Your task to perform on an android device: change your default location settings in chrome Image 0: 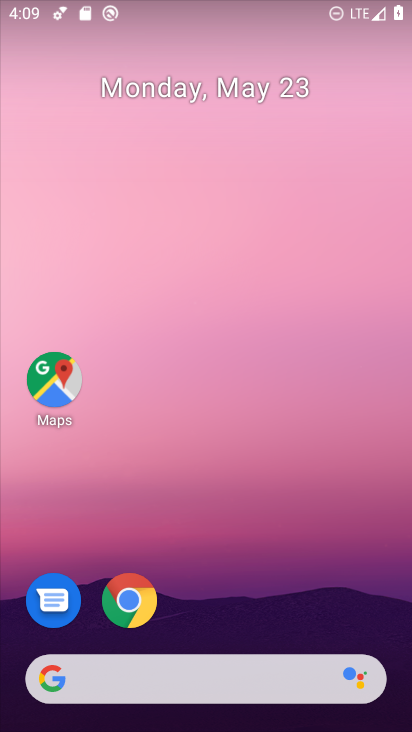
Step 0: click (140, 603)
Your task to perform on an android device: change your default location settings in chrome Image 1: 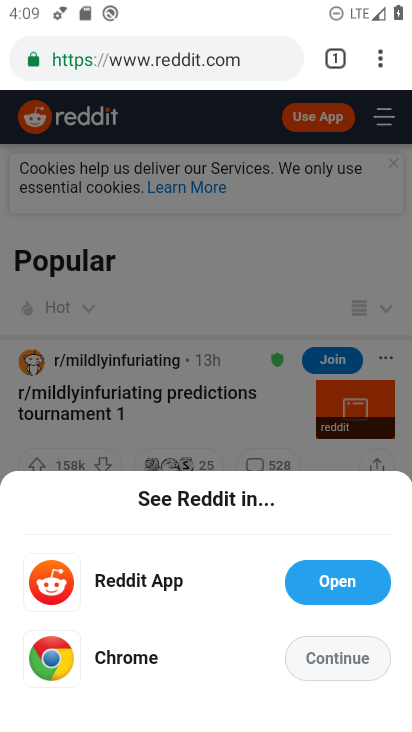
Step 1: click (379, 55)
Your task to perform on an android device: change your default location settings in chrome Image 2: 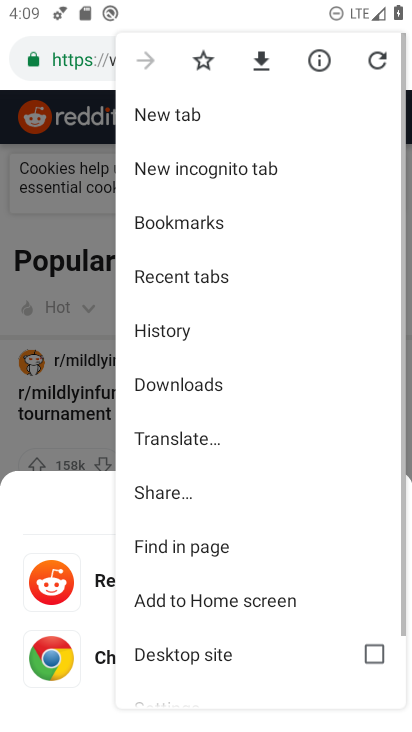
Step 2: drag from (208, 521) to (250, 134)
Your task to perform on an android device: change your default location settings in chrome Image 3: 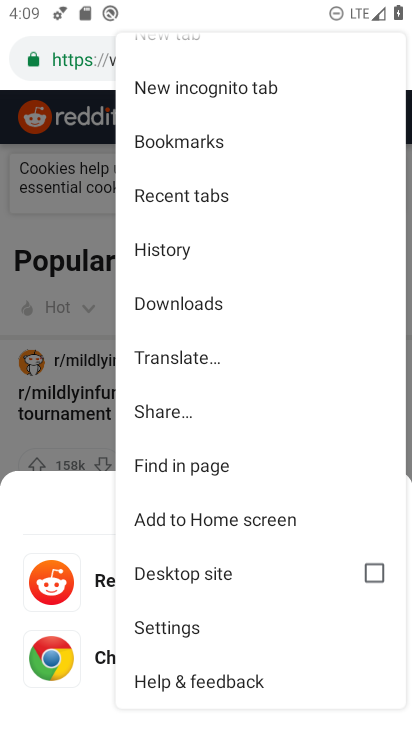
Step 3: click (175, 631)
Your task to perform on an android device: change your default location settings in chrome Image 4: 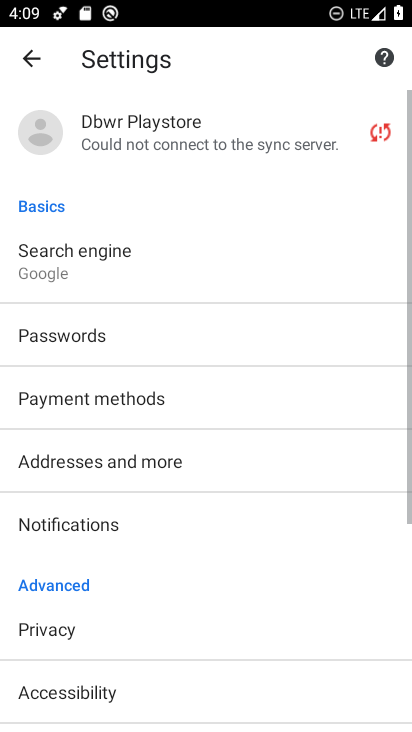
Step 4: drag from (175, 631) to (208, 172)
Your task to perform on an android device: change your default location settings in chrome Image 5: 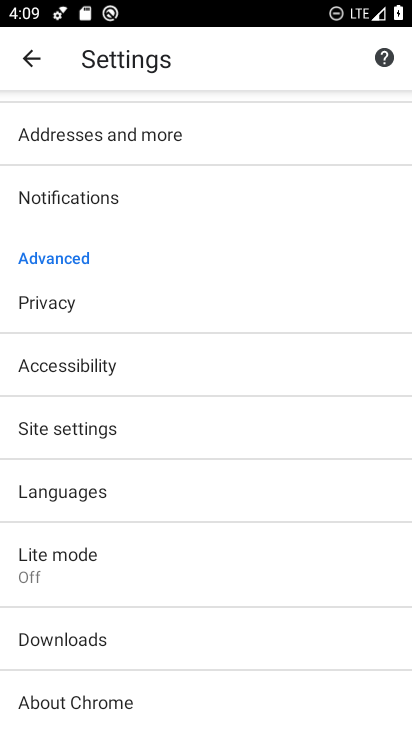
Step 5: click (95, 432)
Your task to perform on an android device: change your default location settings in chrome Image 6: 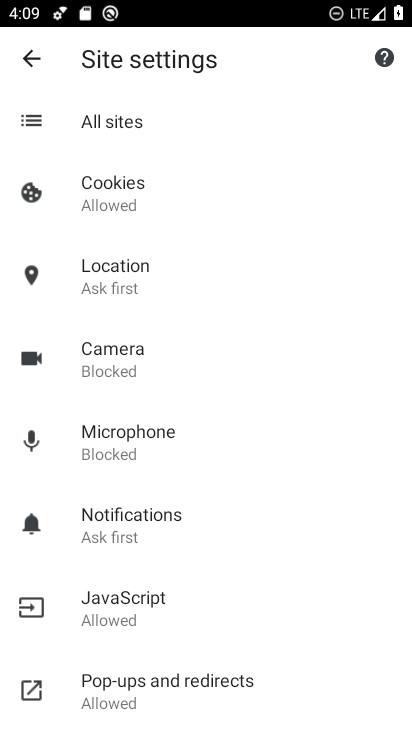
Step 6: click (123, 282)
Your task to perform on an android device: change your default location settings in chrome Image 7: 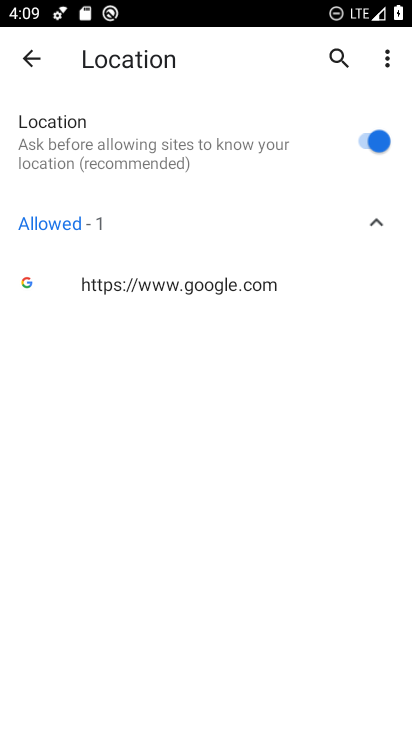
Step 7: click (379, 134)
Your task to perform on an android device: change your default location settings in chrome Image 8: 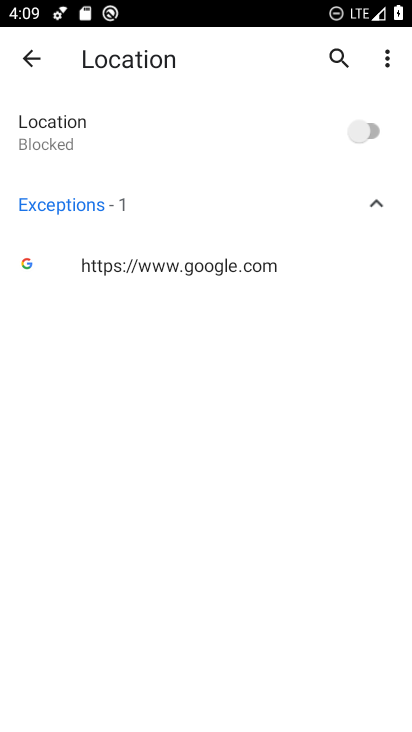
Step 8: task complete